Your task to perform on an android device: Go to internet settings Image 0: 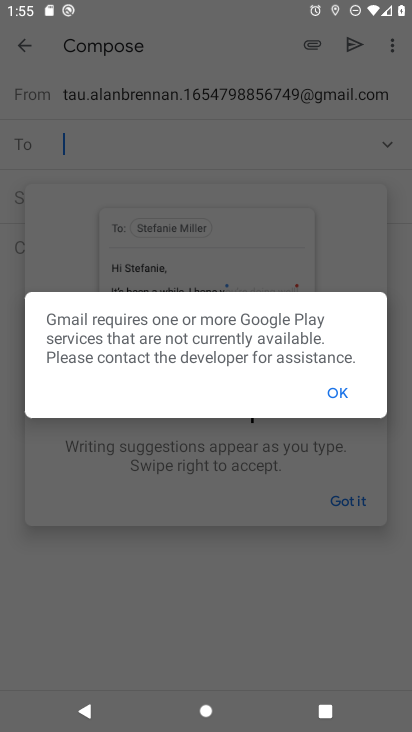
Step 0: press home button
Your task to perform on an android device: Go to internet settings Image 1: 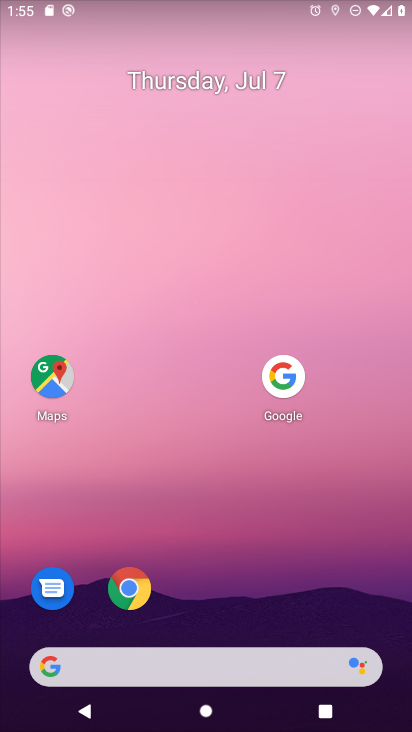
Step 1: drag from (219, 675) to (319, 3)
Your task to perform on an android device: Go to internet settings Image 2: 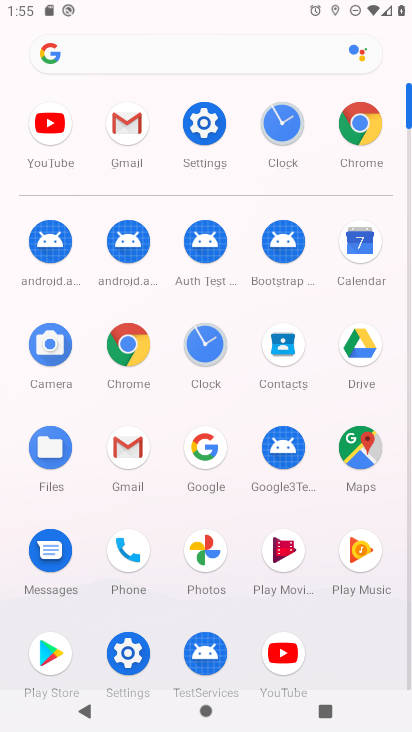
Step 2: click (196, 123)
Your task to perform on an android device: Go to internet settings Image 3: 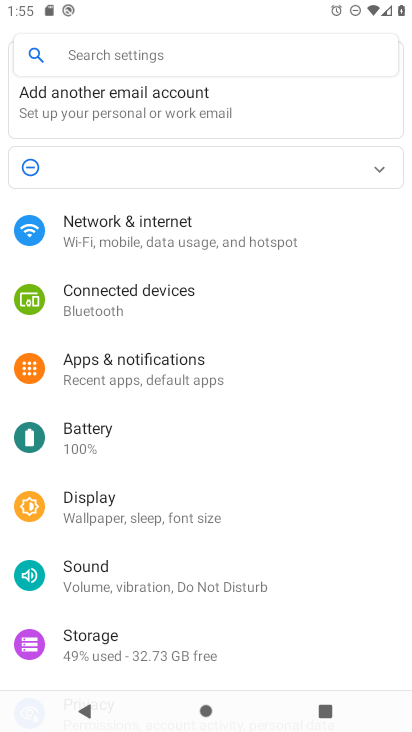
Step 3: click (141, 238)
Your task to perform on an android device: Go to internet settings Image 4: 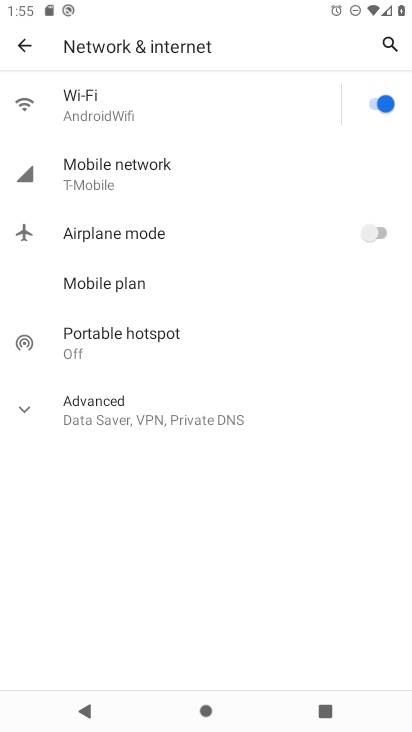
Step 4: click (105, 106)
Your task to perform on an android device: Go to internet settings Image 5: 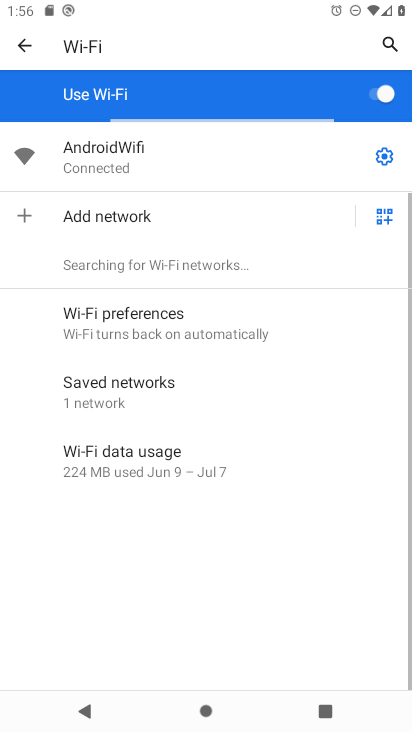
Step 5: task complete